Your task to perform on an android device: turn on showing notifications on the lock screen Image 0: 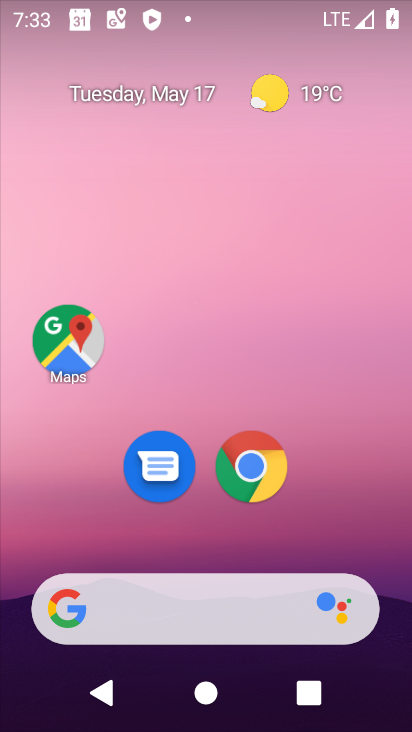
Step 0: drag from (210, 594) to (321, 64)
Your task to perform on an android device: turn on showing notifications on the lock screen Image 1: 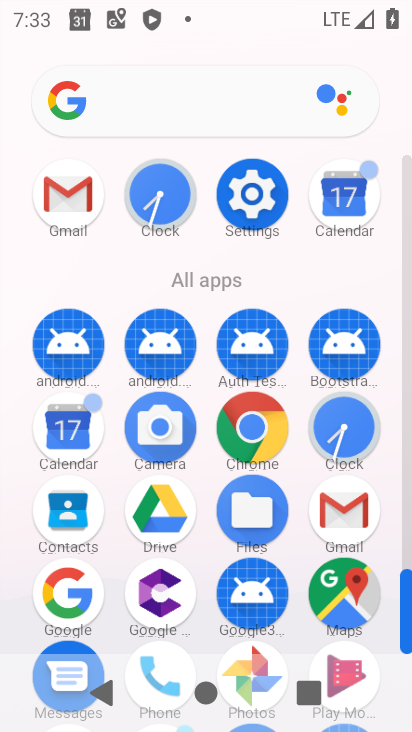
Step 1: click (252, 206)
Your task to perform on an android device: turn on showing notifications on the lock screen Image 2: 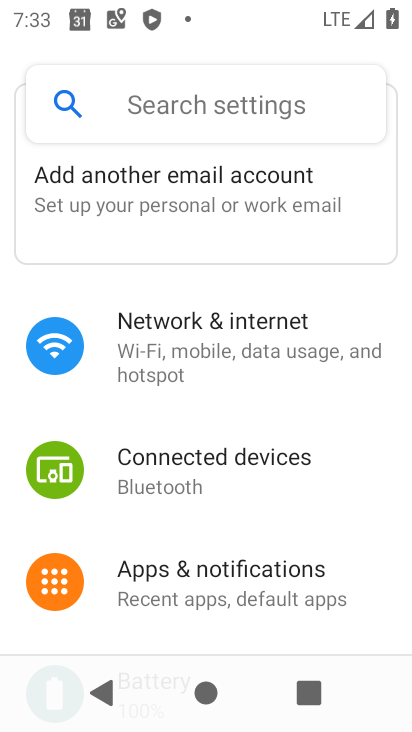
Step 2: click (263, 572)
Your task to perform on an android device: turn on showing notifications on the lock screen Image 3: 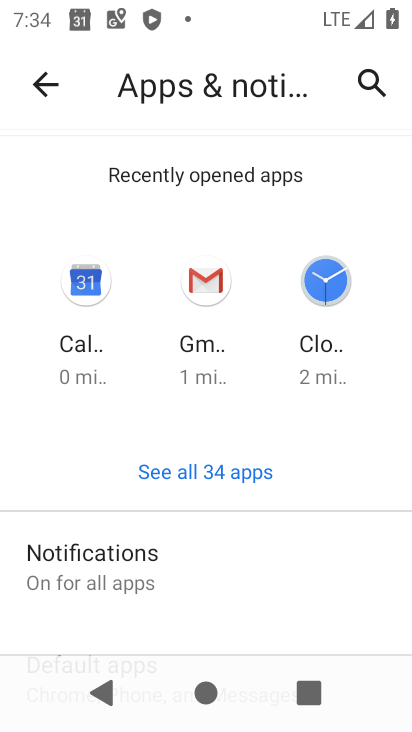
Step 3: click (120, 548)
Your task to perform on an android device: turn on showing notifications on the lock screen Image 4: 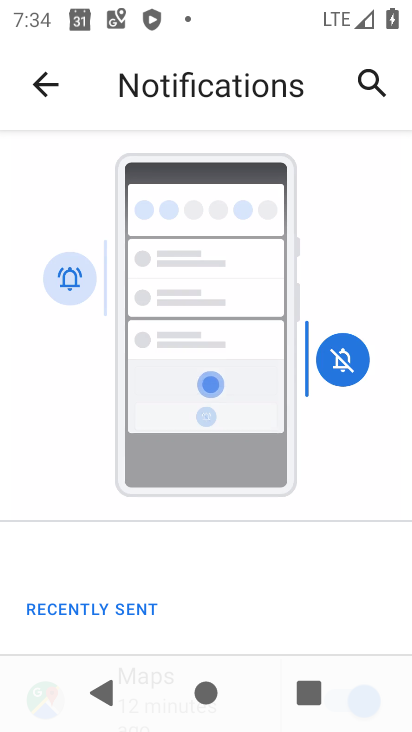
Step 4: drag from (214, 583) to (295, 163)
Your task to perform on an android device: turn on showing notifications on the lock screen Image 5: 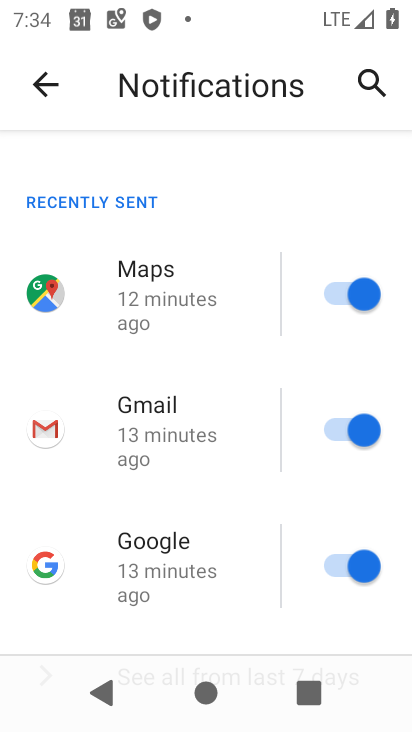
Step 5: drag from (249, 547) to (362, 55)
Your task to perform on an android device: turn on showing notifications on the lock screen Image 6: 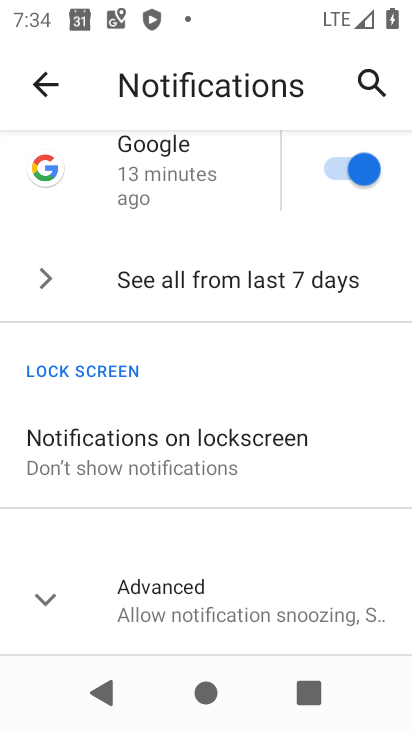
Step 6: click (182, 479)
Your task to perform on an android device: turn on showing notifications on the lock screen Image 7: 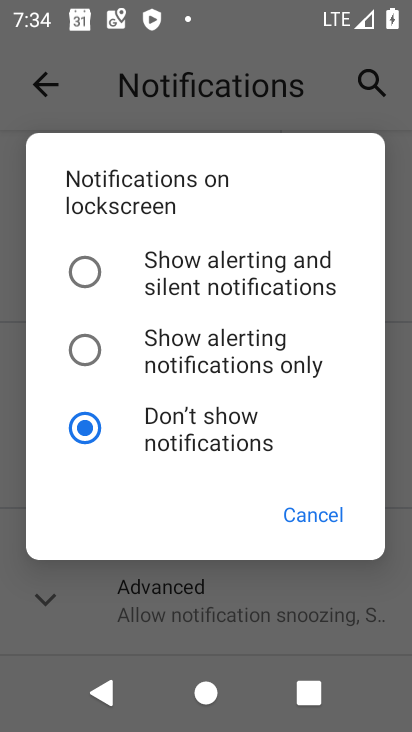
Step 7: click (89, 265)
Your task to perform on an android device: turn on showing notifications on the lock screen Image 8: 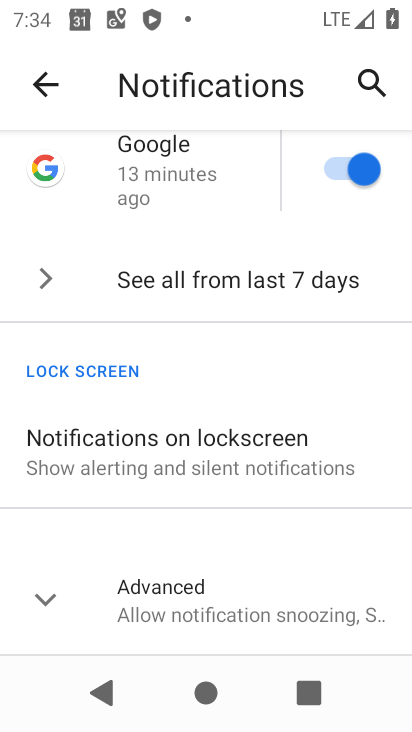
Step 8: task complete